Your task to perform on an android device: set default search engine in the chrome app Image 0: 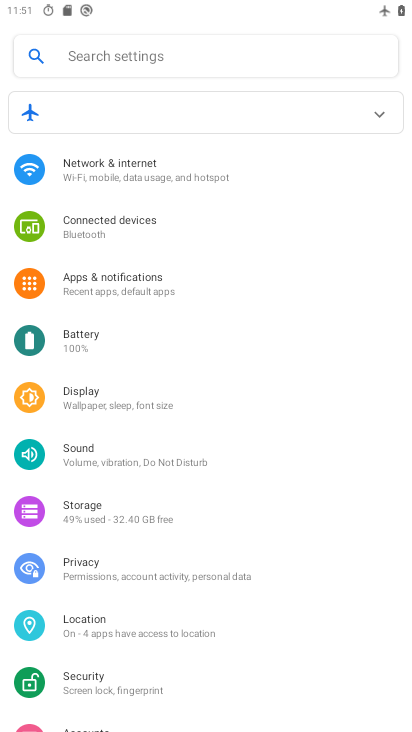
Step 0: press home button
Your task to perform on an android device: set default search engine in the chrome app Image 1: 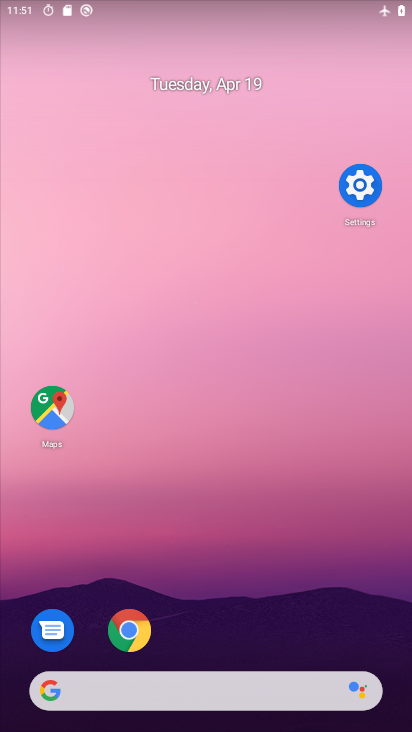
Step 1: drag from (283, 523) to (301, 8)
Your task to perform on an android device: set default search engine in the chrome app Image 2: 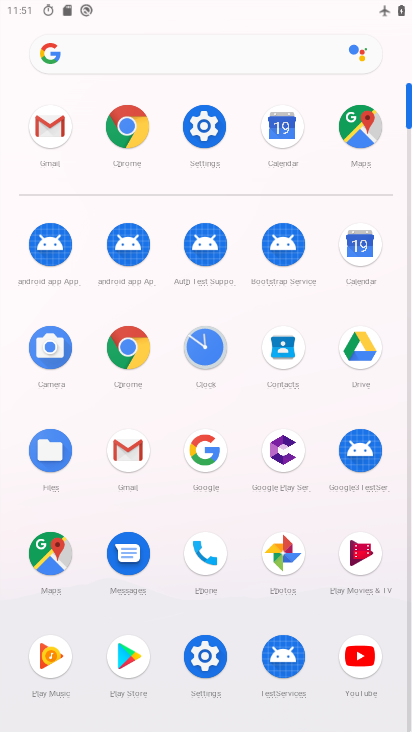
Step 2: click (136, 152)
Your task to perform on an android device: set default search engine in the chrome app Image 3: 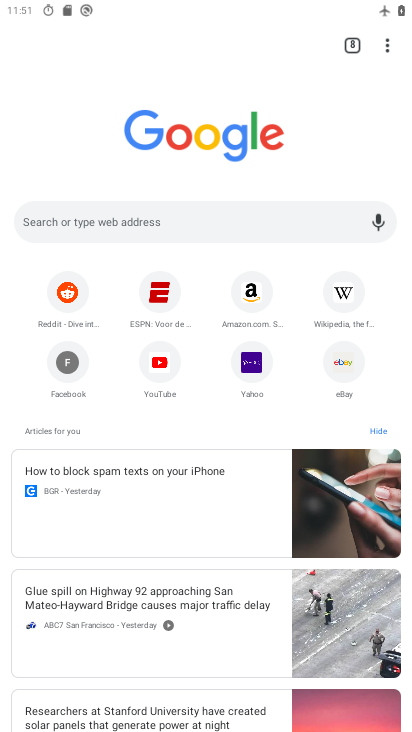
Step 3: click (387, 58)
Your task to perform on an android device: set default search engine in the chrome app Image 4: 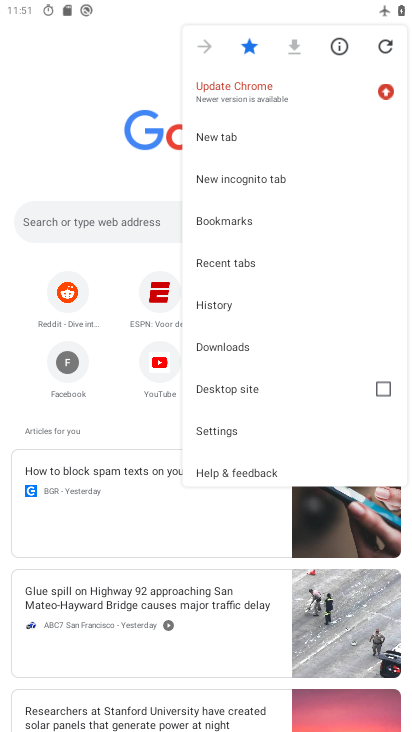
Step 4: click (265, 439)
Your task to perform on an android device: set default search engine in the chrome app Image 5: 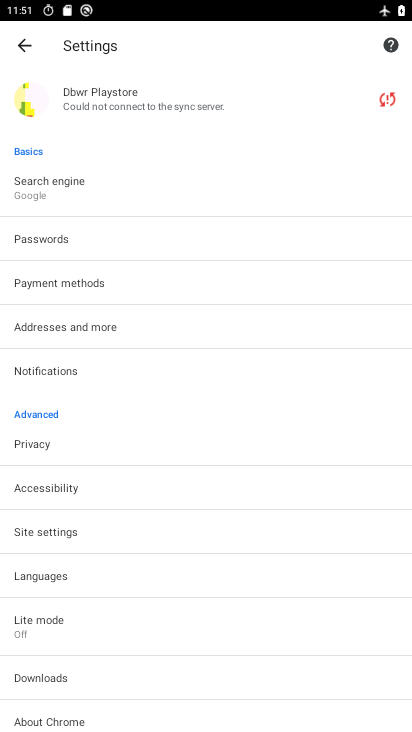
Step 5: click (81, 191)
Your task to perform on an android device: set default search engine in the chrome app Image 6: 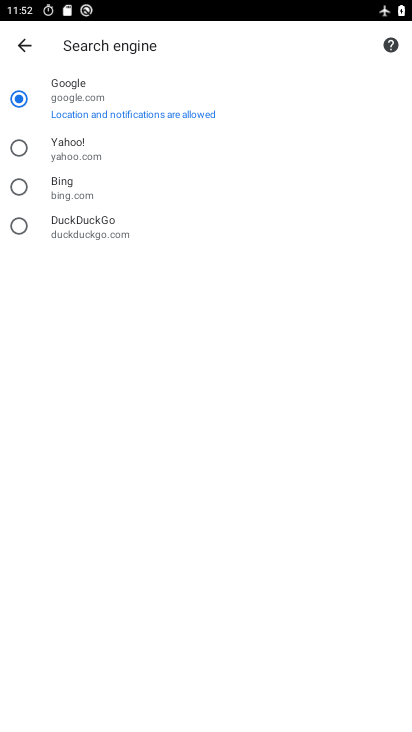
Step 6: task complete